Your task to perform on an android device: empty trash in google photos Image 0: 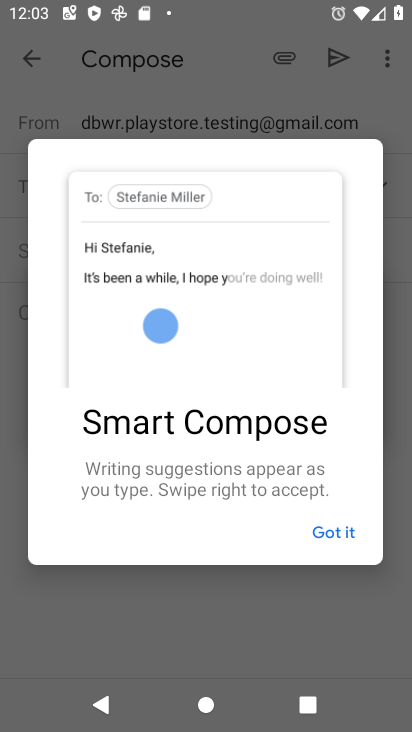
Step 0: press home button
Your task to perform on an android device: empty trash in google photos Image 1: 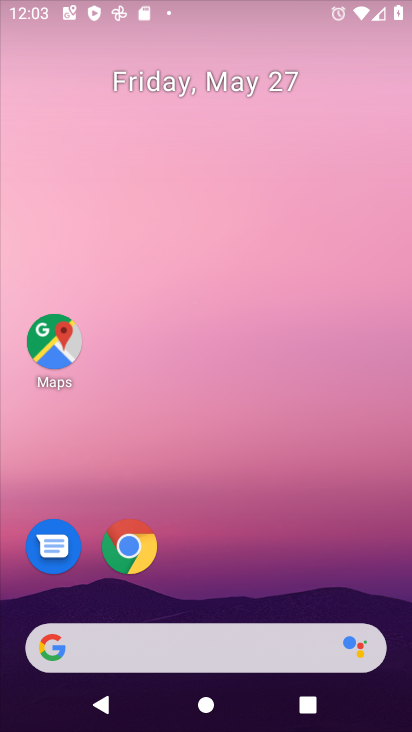
Step 1: drag from (219, 590) to (256, 130)
Your task to perform on an android device: empty trash in google photos Image 2: 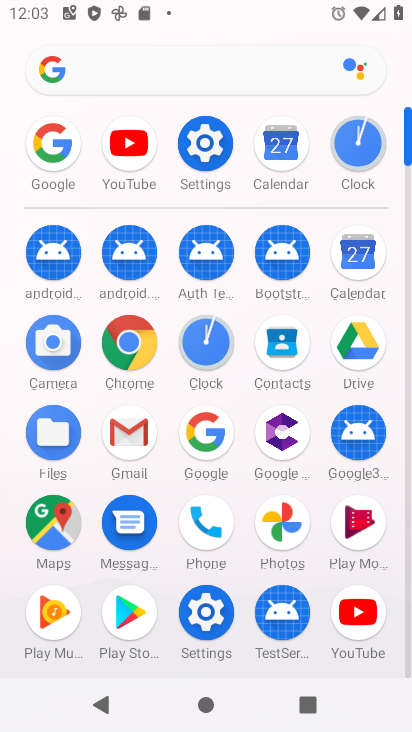
Step 2: click (275, 521)
Your task to perform on an android device: empty trash in google photos Image 3: 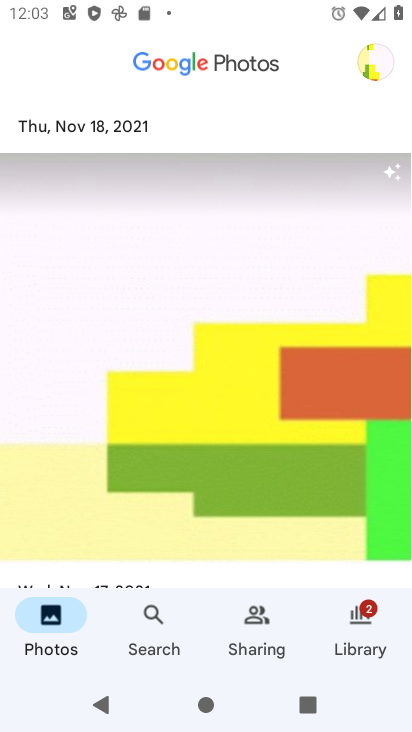
Step 3: click (367, 58)
Your task to perform on an android device: empty trash in google photos Image 4: 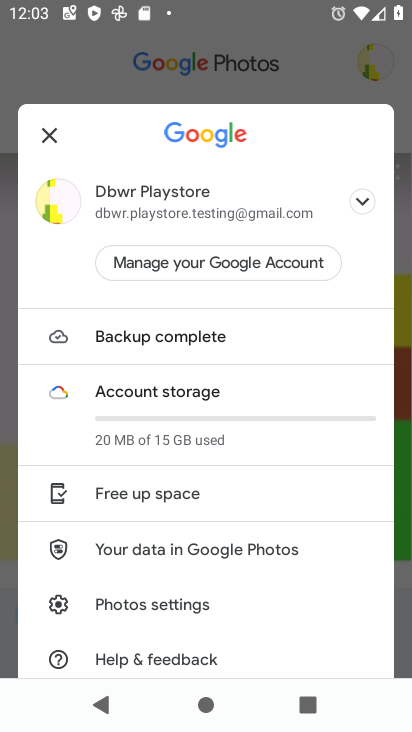
Step 4: click (54, 131)
Your task to perform on an android device: empty trash in google photos Image 5: 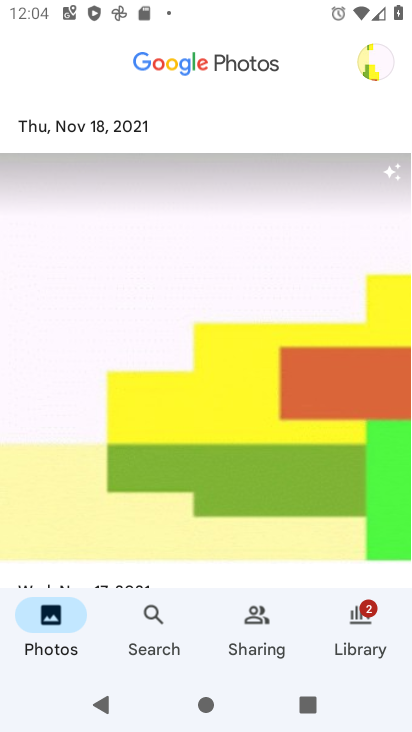
Step 5: click (348, 640)
Your task to perform on an android device: empty trash in google photos Image 6: 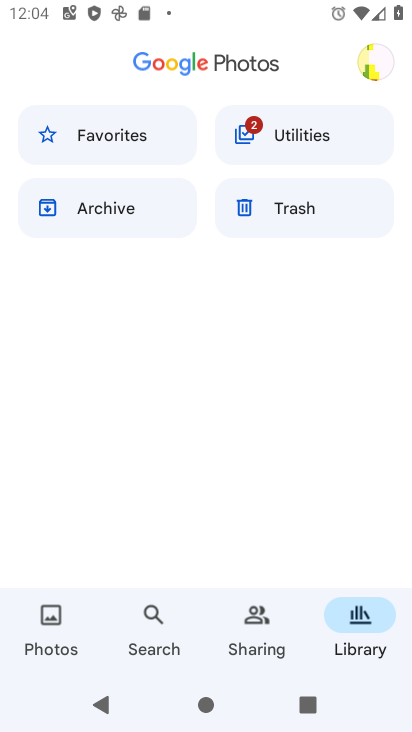
Step 6: click (267, 191)
Your task to perform on an android device: empty trash in google photos Image 7: 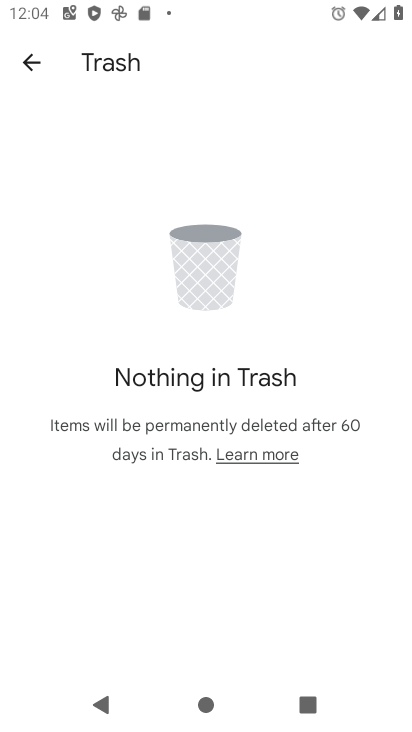
Step 7: task complete